Your task to perform on an android device: check battery use Image 0: 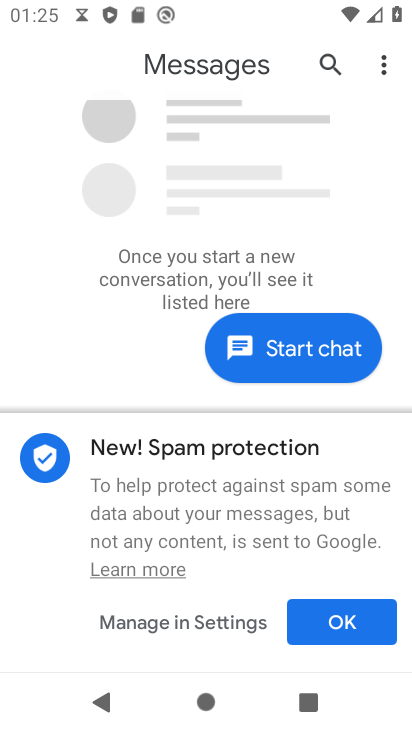
Step 0: press home button
Your task to perform on an android device: check battery use Image 1: 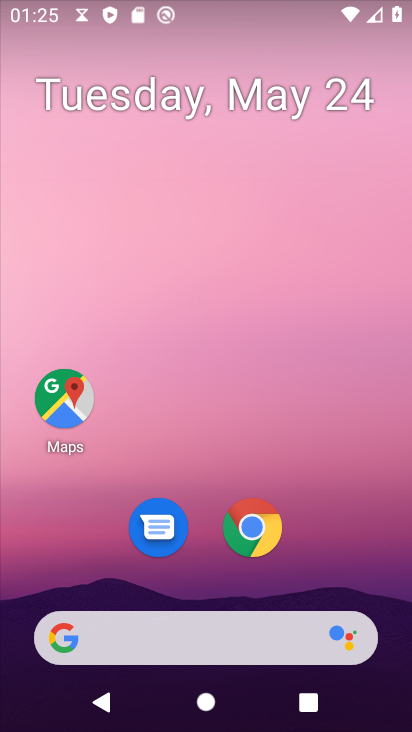
Step 1: drag from (151, 646) to (267, 41)
Your task to perform on an android device: check battery use Image 2: 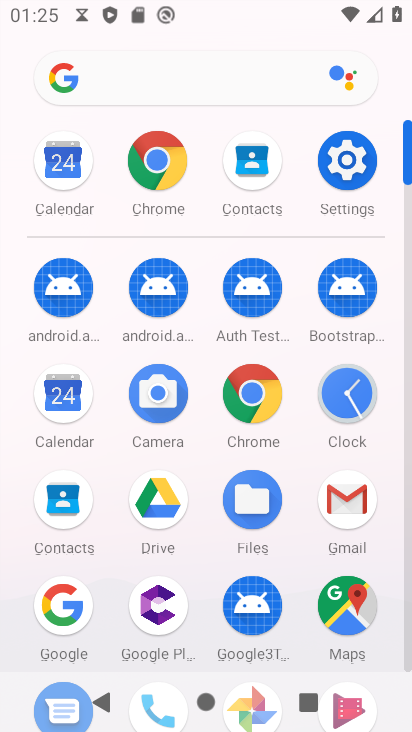
Step 2: click (352, 174)
Your task to perform on an android device: check battery use Image 3: 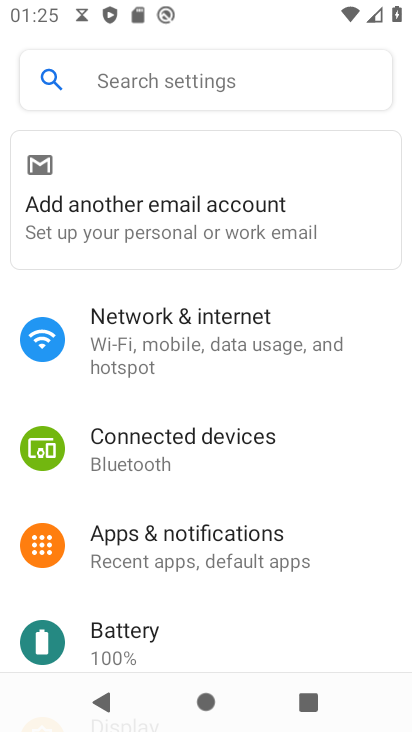
Step 3: drag from (179, 611) to (252, 268)
Your task to perform on an android device: check battery use Image 4: 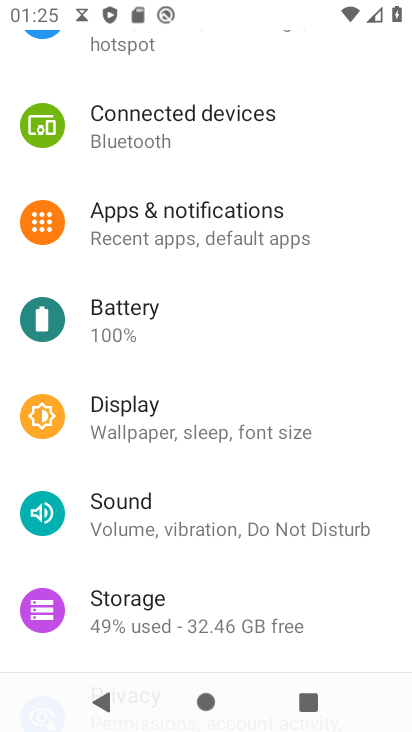
Step 4: click (137, 310)
Your task to perform on an android device: check battery use Image 5: 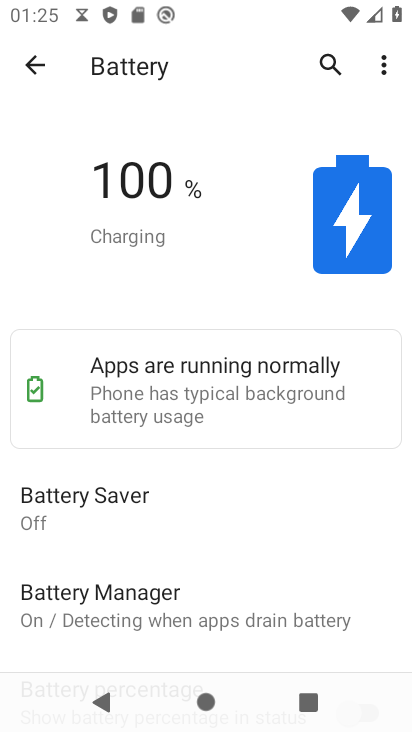
Step 5: click (384, 60)
Your task to perform on an android device: check battery use Image 6: 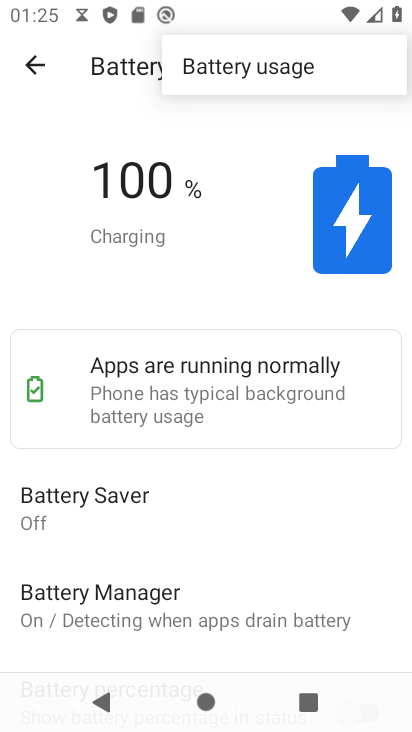
Step 6: click (248, 70)
Your task to perform on an android device: check battery use Image 7: 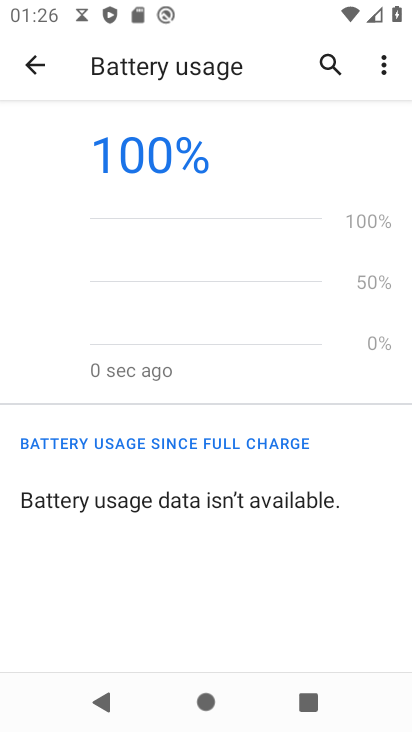
Step 7: task complete